Your task to perform on an android device: delete location history Image 0: 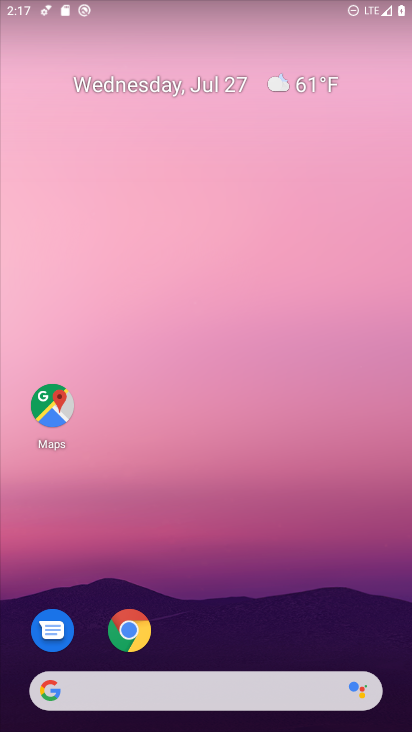
Step 0: click (46, 398)
Your task to perform on an android device: delete location history Image 1: 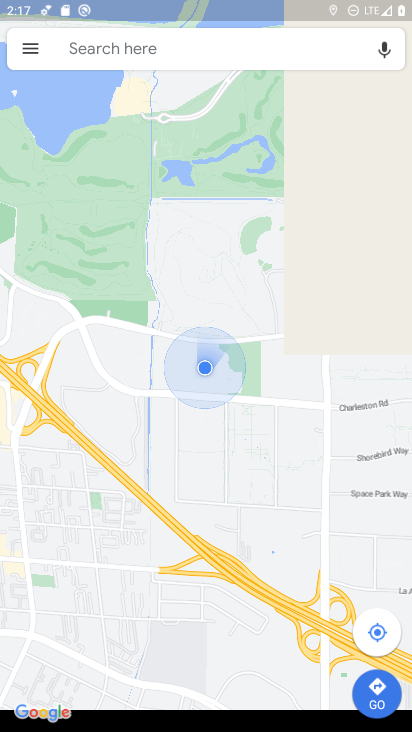
Step 1: click (29, 45)
Your task to perform on an android device: delete location history Image 2: 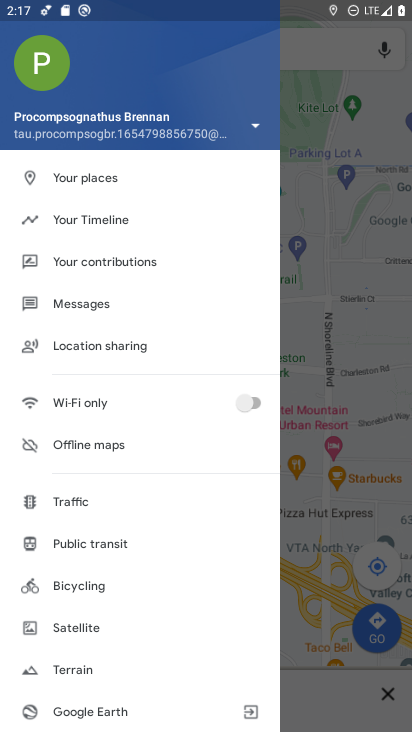
Step 2: click (46, 213)
Your task to perform on an android device: delete location history Image 3: 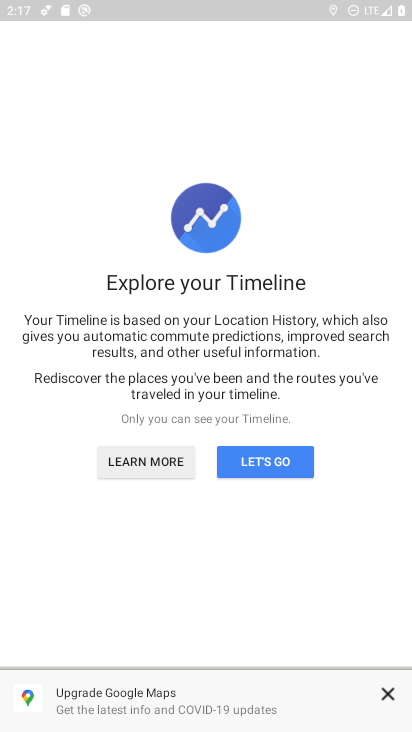
Step 3: click (235, 460)
Your task to perform on an android device: delete location history Image 4: 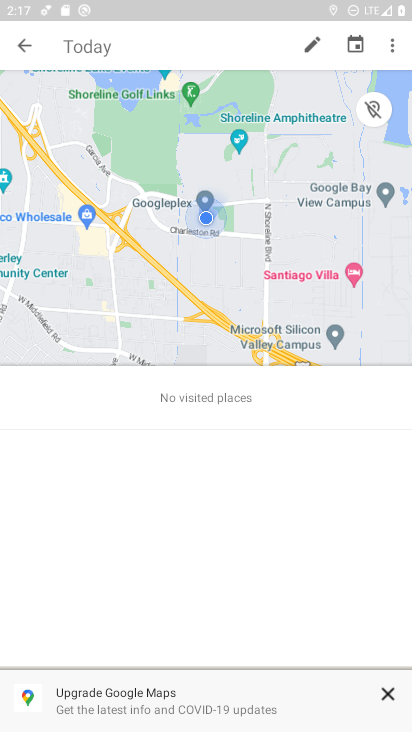
Step 4: click (388, 44)
Your task to perform on an android device: delete location history Image 5: 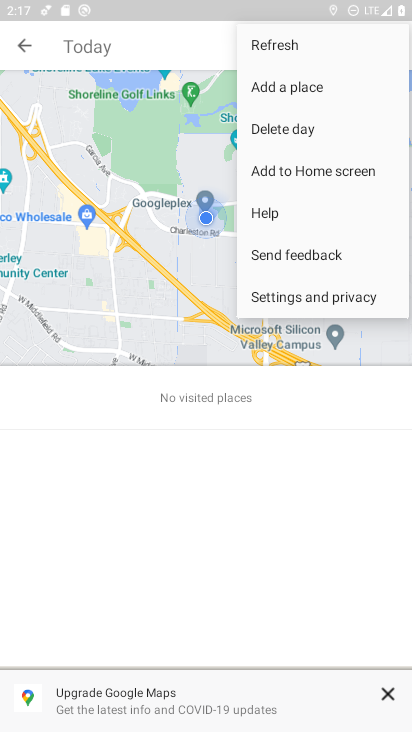
Step 5: click (370, 295)
Your task to perform on an android device: delete location history Image 6: 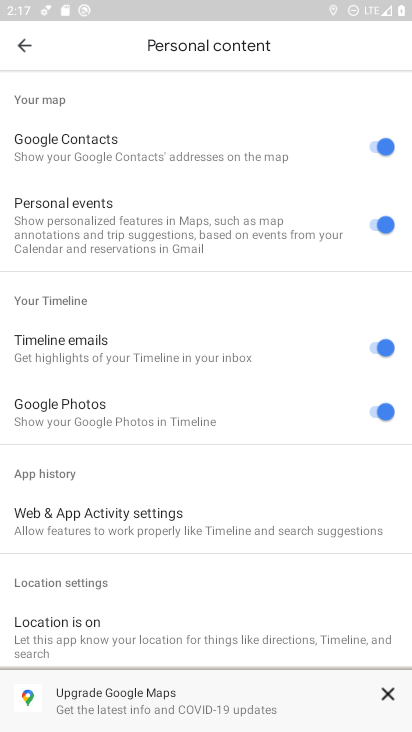
Step 6: drag from (123, 531) to (123, 68)
Your task to perform on an android device: delete location history Image 7: 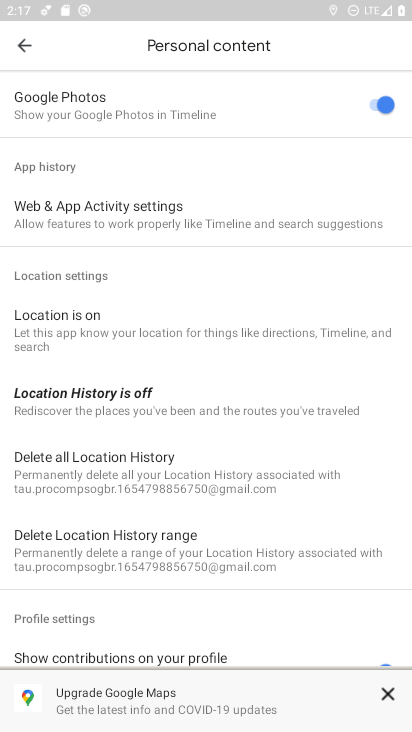
Step 7: click (158, 458)
Your task to perform on an android device: delete location history Image 8: 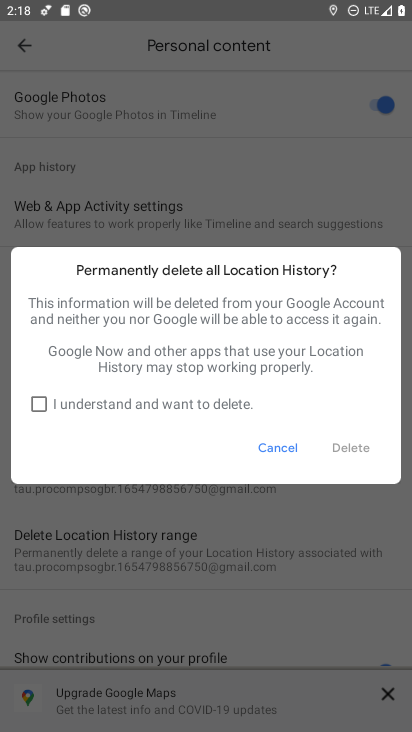
Step 8: click (39, 402)
Your task to perform on an android device: delete location history Image 9: 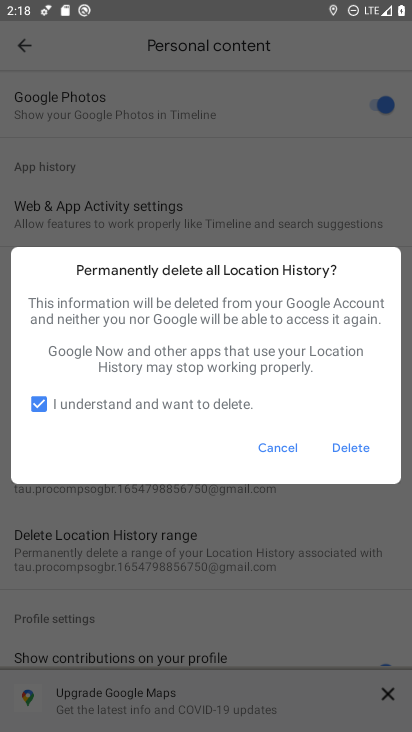
Step 9: click (346, 450)
Your task to perform on an android device: delete location history Image 10: 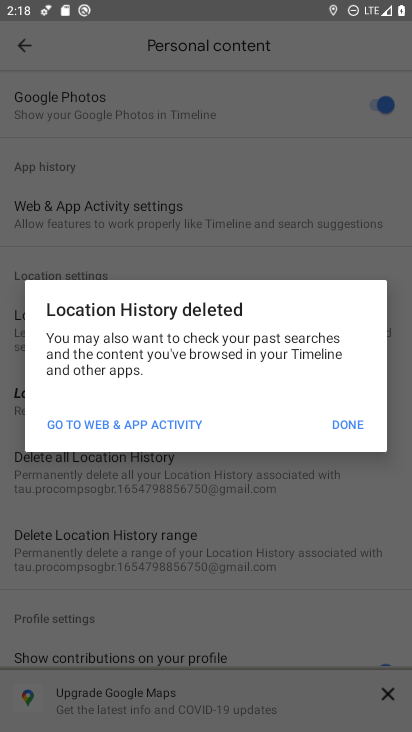
Step 10: click (354, 421)
Your task to perform on an android device: delete location history Image 11: 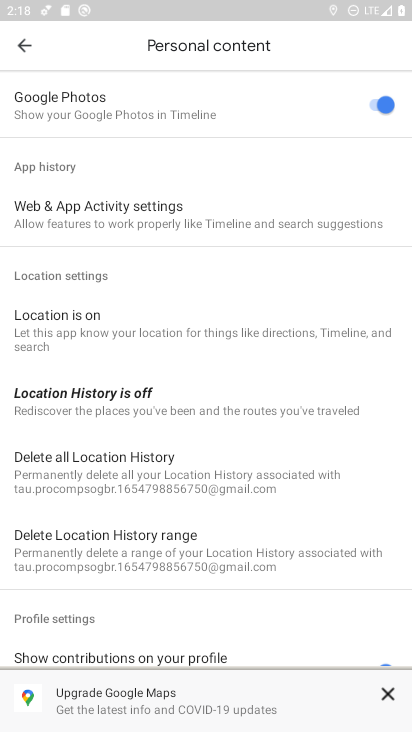
Step 11: task complete